Your task to perform on an android device: Go to Google Image 0: 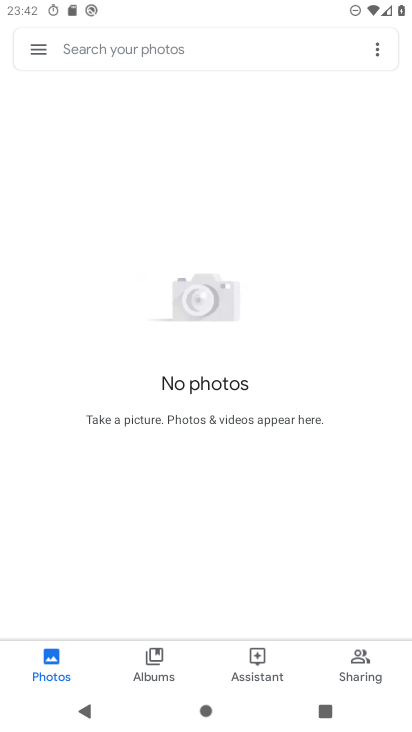
Step 0: press home button
Your task to perform on an android device: Go to Google Image 1: 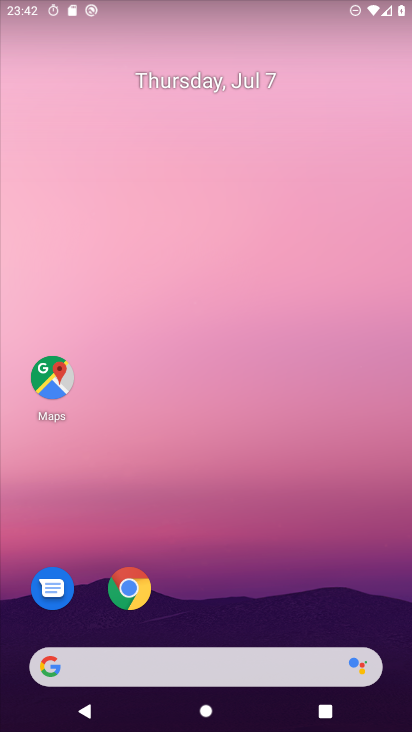
Step 1: drag from (306, 574) to (312, 3)
Your task to perform on an android device: Go to Google Image 2: 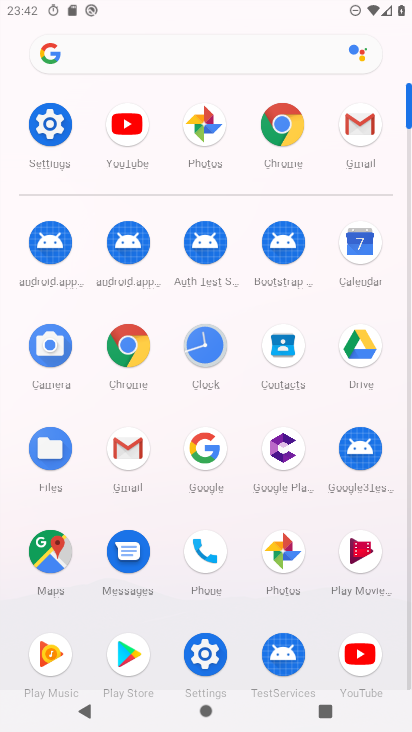
Step 2: click (204, 451)
Your task to perform on an android device: Go to Google Image 3: 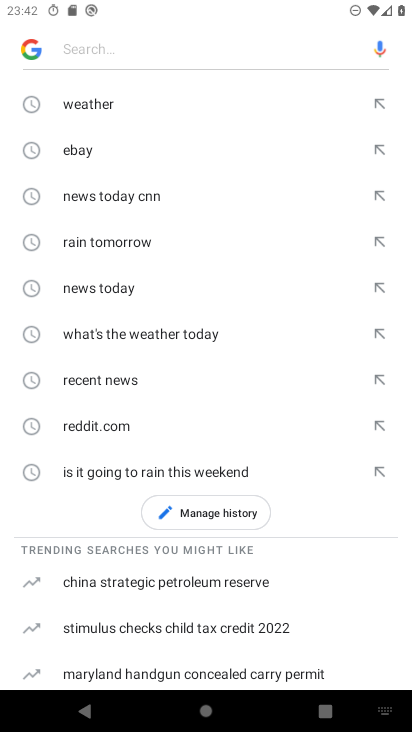
Step 3: task complete